Your task to perform on an android device: open sync settings in chrome Image 0: 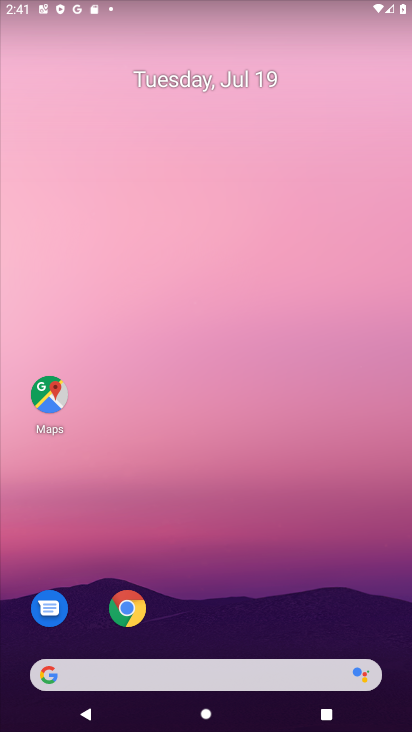
Step 0: drag from (211, 613) to (225, 2)
Your task to perform on an android device: open sync settings in chrome Image 1: 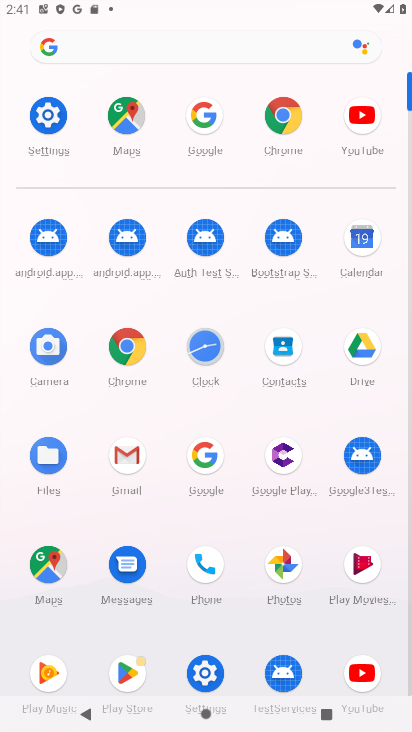
Step 1: click (284, 105)
Your task to perform on an android device: open sync settings in chrome Image 2: 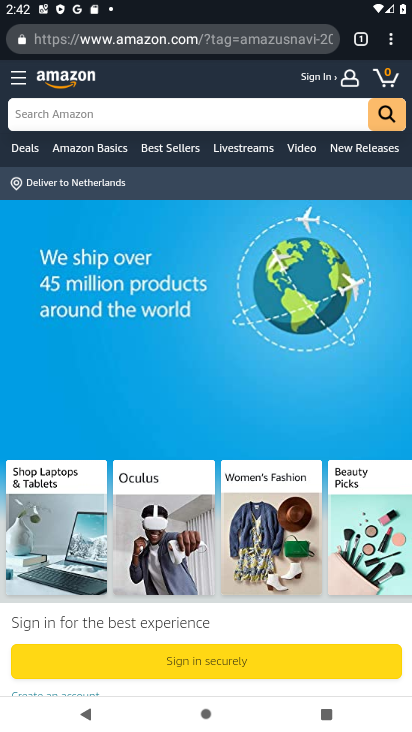
Step 2: drag from (395, 33) to (272, 472)
Your task to perform on an android device: open sync settings in chrome Image 3: 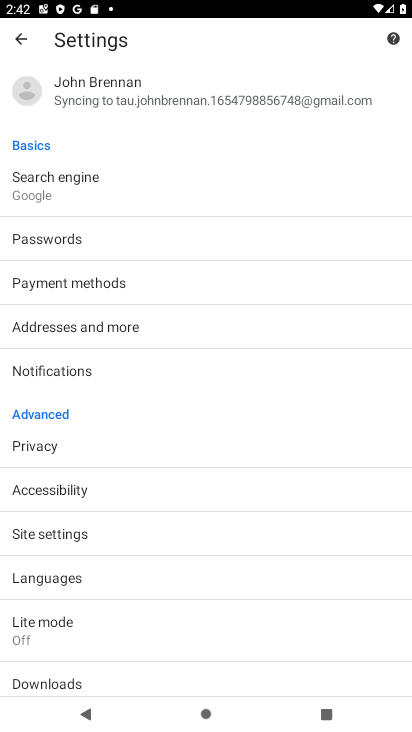
Step 3: click (74, 99)
Your task to perform on an android device: open sync settings in chrome Image 4: 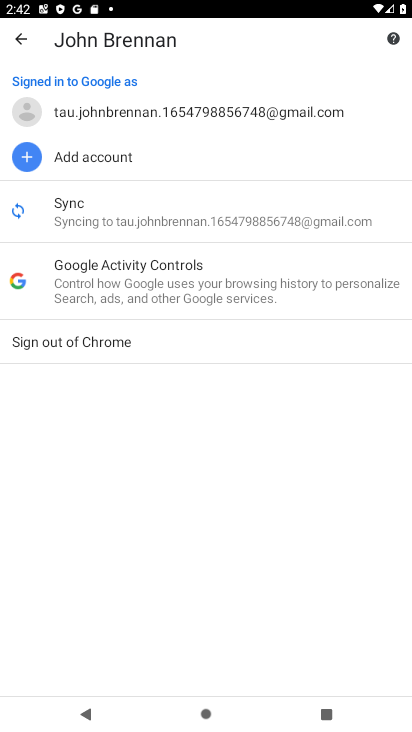
Step 4: click (112, 206)
Your task to perform on an android device: open sync settings in chrome Image 5: 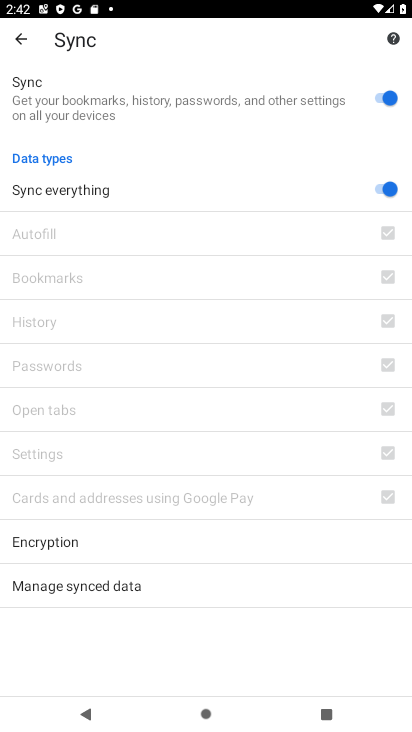
Step 5: task complete